Your task to perform on an android device: allow cookies in the chrome app Image 0: 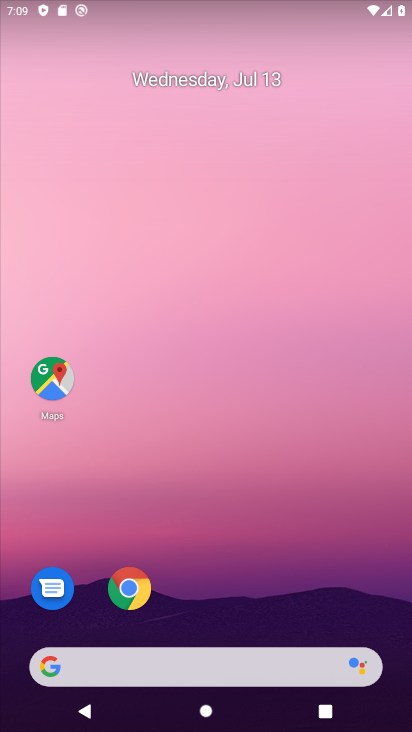
Step 0: click (129, 590)
Your task to perform on an android device: allow cookies in the chrome app Image 1: 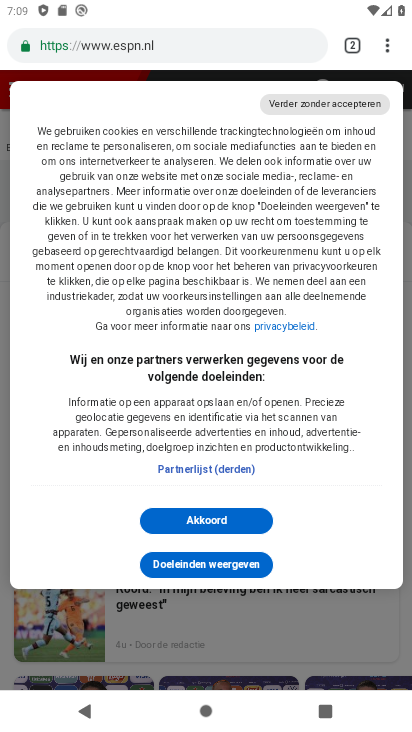
Step 1: click (389, 49)
Your task to perform on an android device: allow cookies in the chrome app Image 2: 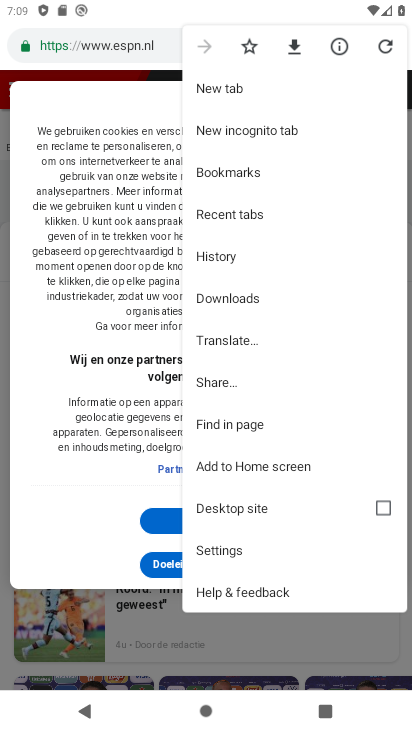
Step 2: click (215, 549)
Your task to perform on an android device: allow cookies in the chrome app Image 3: 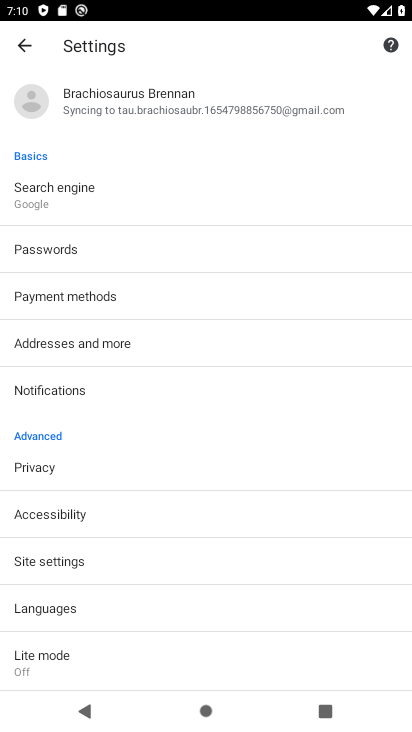
Step 3: click (42, 560)
Your task to perform on an android device: allow cookies in the chrome app Image 4: 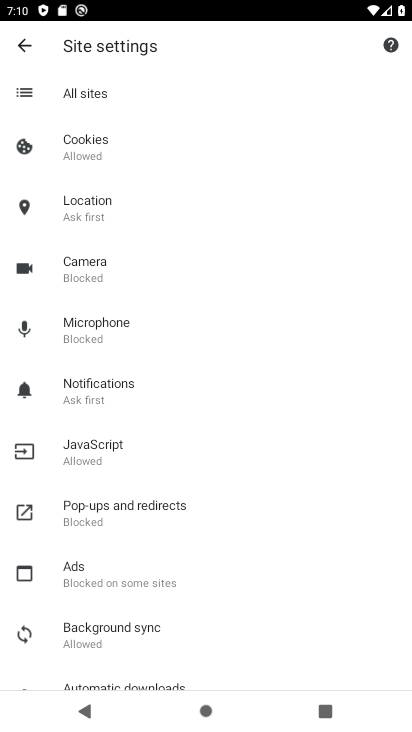
Step 4: click (85, 140)
Your task to perform on an android device: allow cookies in the chrome app Image 5: 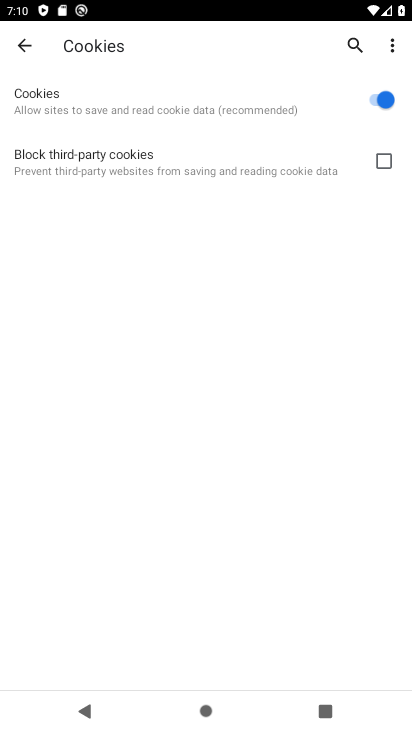
Step 5: task complete